Your task to perform on an android device: check out phone information Image 0: 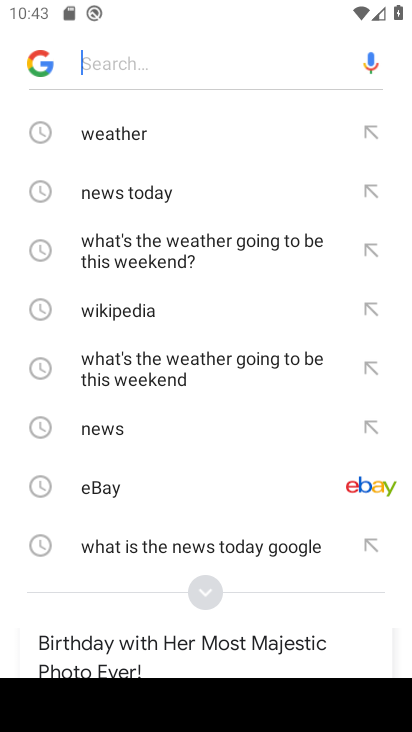
Step 0: press home button
Your task to perform on an android device: check out phone information Image 1: 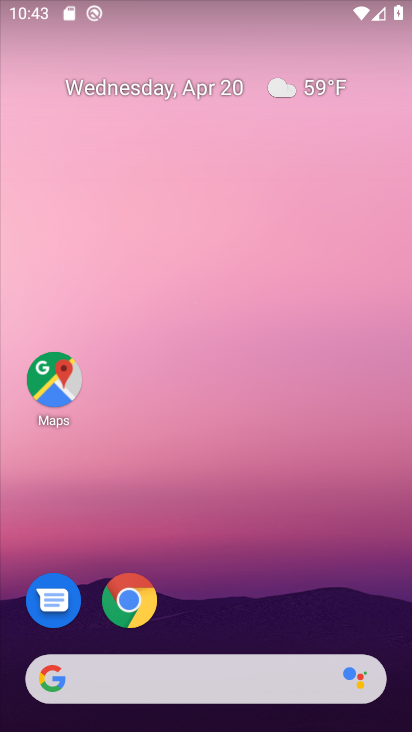
Step 1: drag from (256, 558) to (290, 124)
Your task to perform on an android device: check out phone information Image 2: 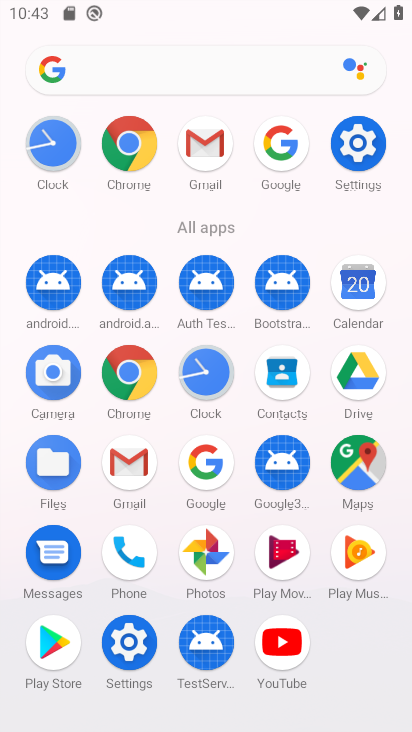
Step 2: click (132, 543)
Your task to perform on an android device: check out phone information Image 3: 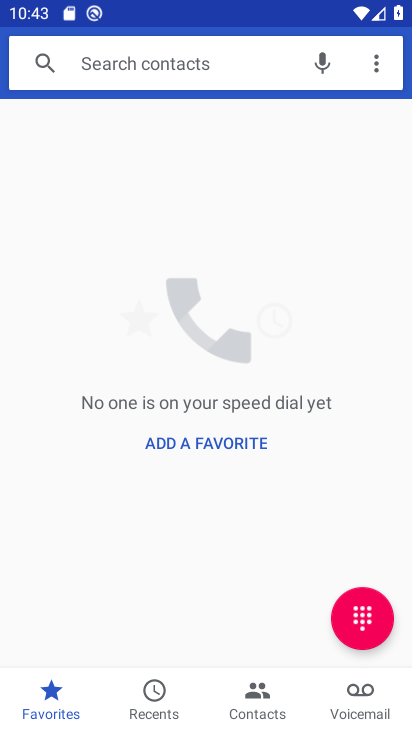
Step 3: click (372, 63)
Your task to perform on an android device: check out phone information Image 4: 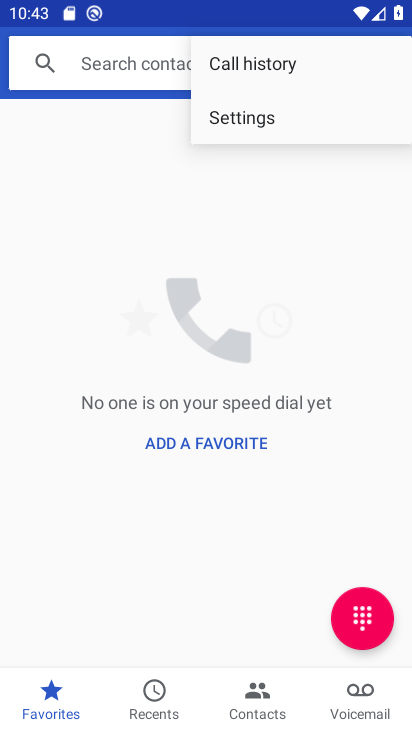
Step 4: click (313, 122)
Your task to perform on an android device: check out phone information Image 5: 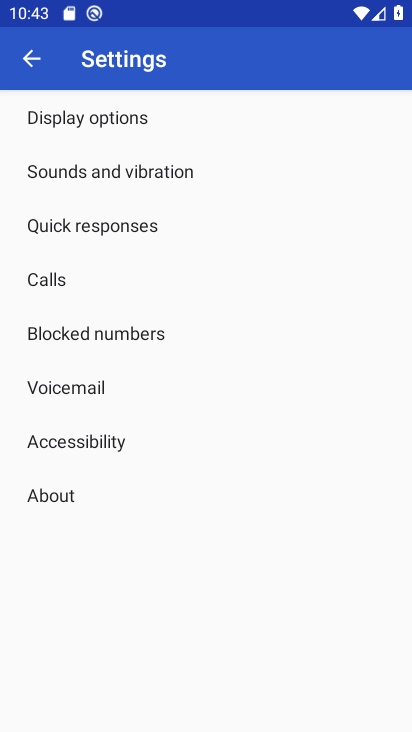
Step 5: click (68, 489)
Your task to perform on an android device: check out phone information Image 6: 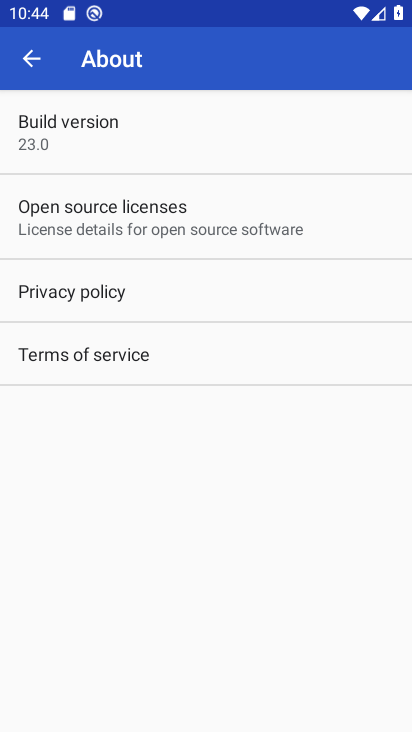
Step 6: task complete